Your task to perform on an android device: Go to calendar. Show me events next week Image 0: 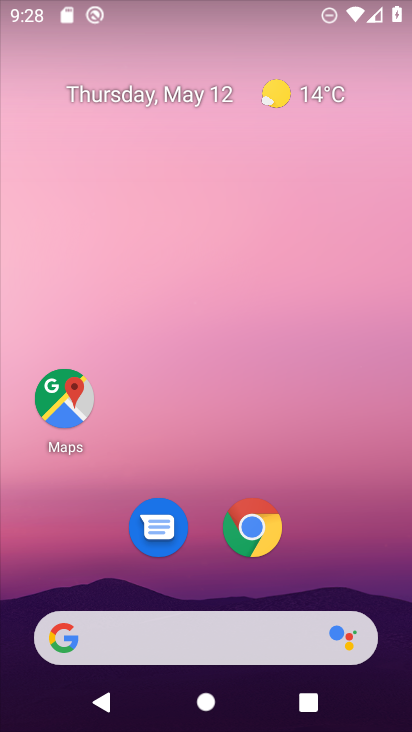
Step 0: drag from (368, 572) to (306, 125)
Your task to perform on an android device: Go to calendar. Show me events next week Image 1: 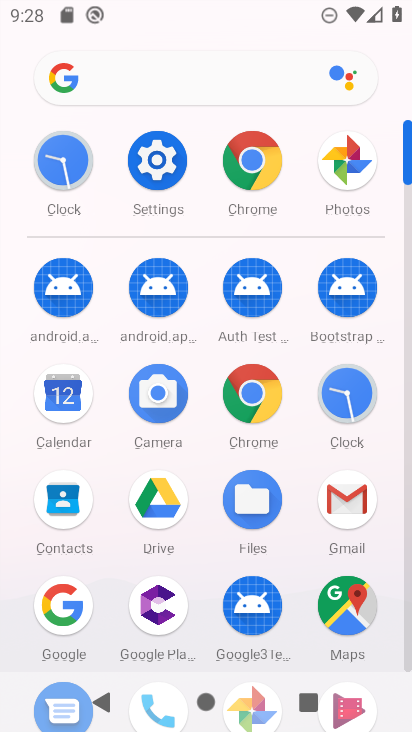
Step 1: drag from (61, 513) to (83, 366)
Your task to perform on an android device: Go to calendar. Show me events next week Image 2: 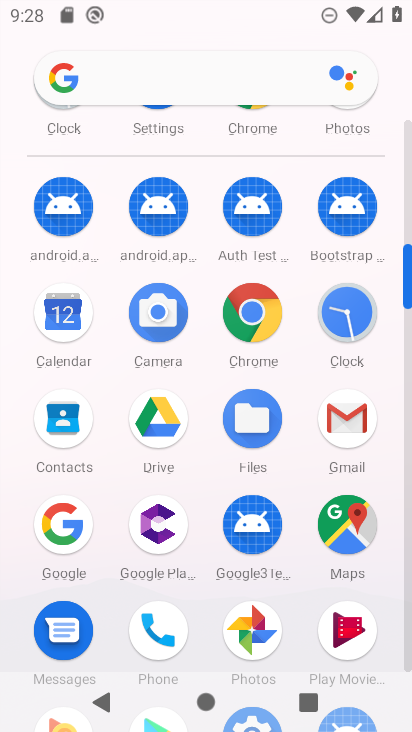
Step 2: click (79, 335)
Your task to perform on an android device: Go to calendar. Show me events next week Image 3: 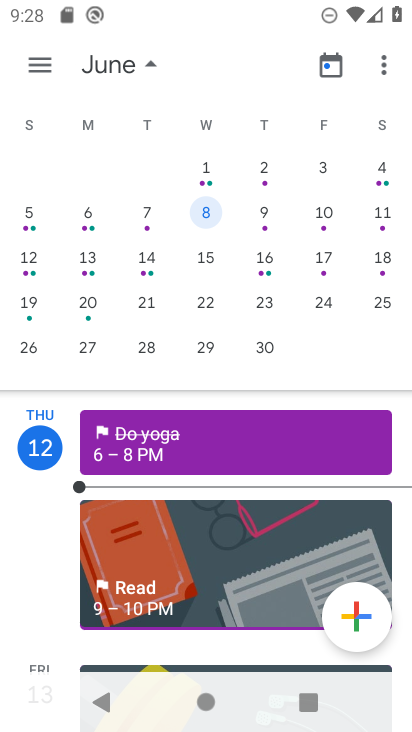
Step 3: drag from (68, 218) to (337, 245)
Your task to perform on an android device: Go to calendar. Show me events next week Image 4: 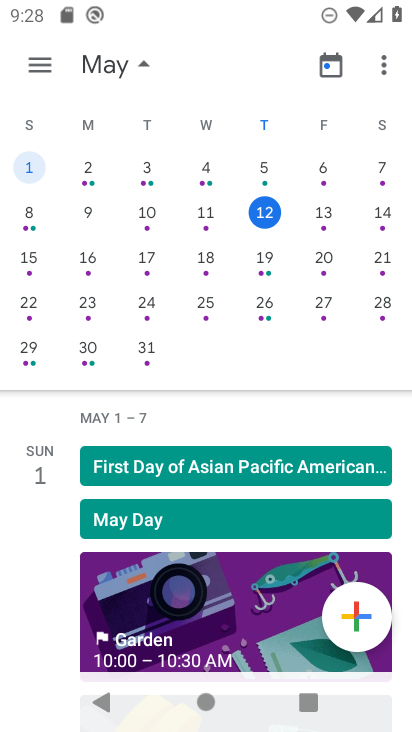
Step 4: click (138, 297)
Your task to perform on an android device: Go to calendar. Show me events next week Image 5: 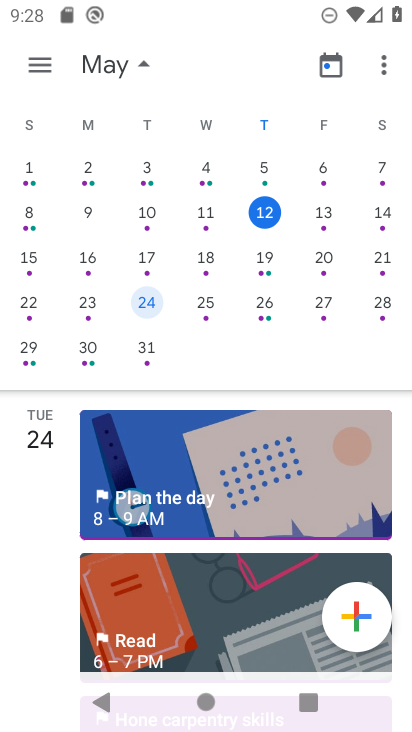
Step 5: task complete